Your task to perform on an android device: uninstall "Expedia: Hotels, Flights & Car" Image 0: 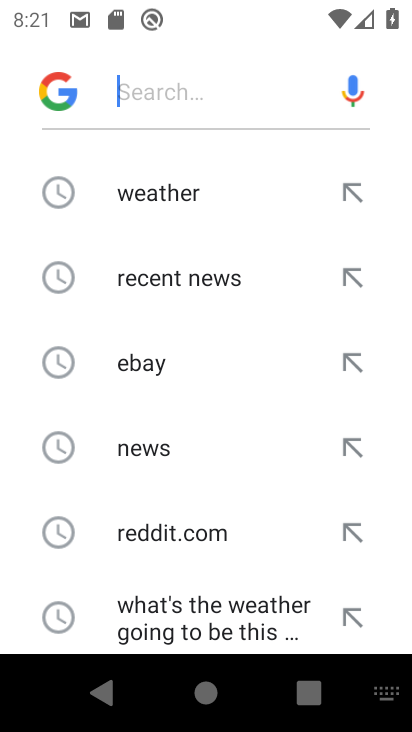
Step 0: press home button
Your task to perform on an android device: uninstall "Expedia: Hotels, Flights & Car" Image 1: 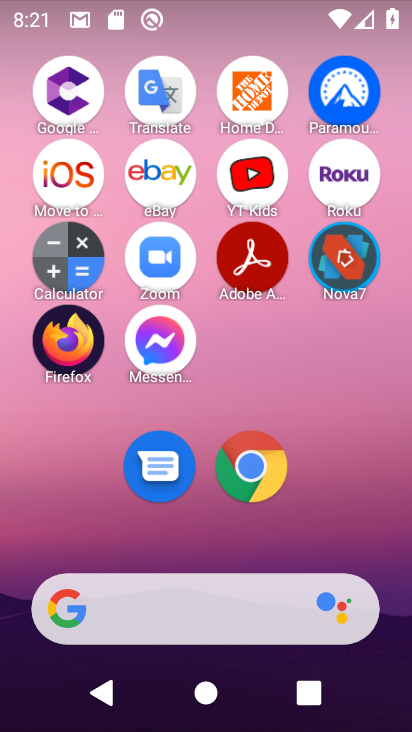
Step 1: drag from (212, 533) to (217, 81)
Your task to perform on an android device: uninstall "Expedia: Hotels, Flights & Car" Image 2: 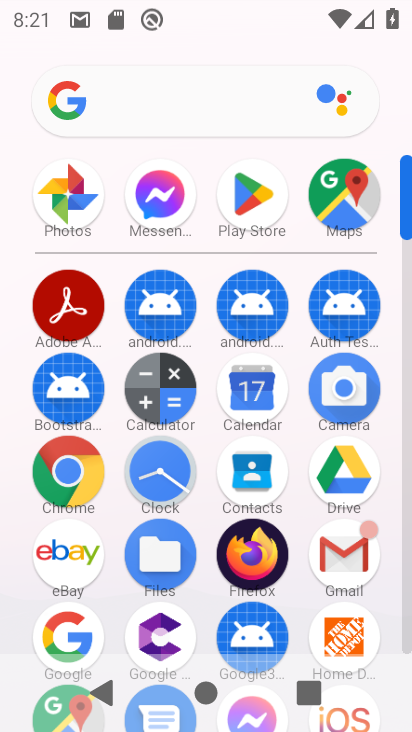
Step 2: click (247, 191)
Your task to perform on an android device: uninstall "Expedia: Hotels, Flights & Car" Image 3: 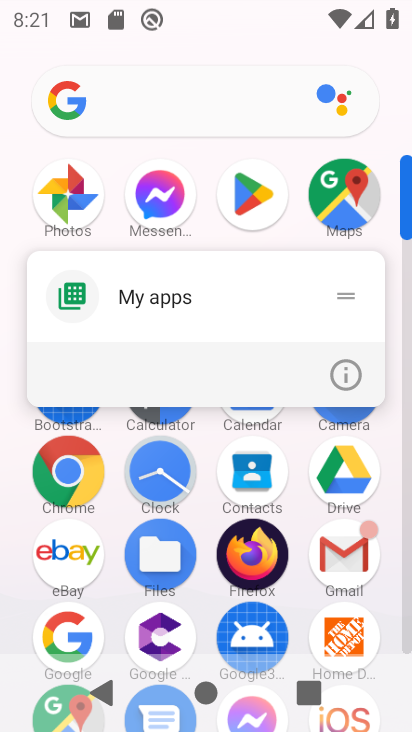
Step 3: click (246, 198)
Your task to perform on an android device: uninstall "Expedia: Hotels, Flights & Car" Image 4: 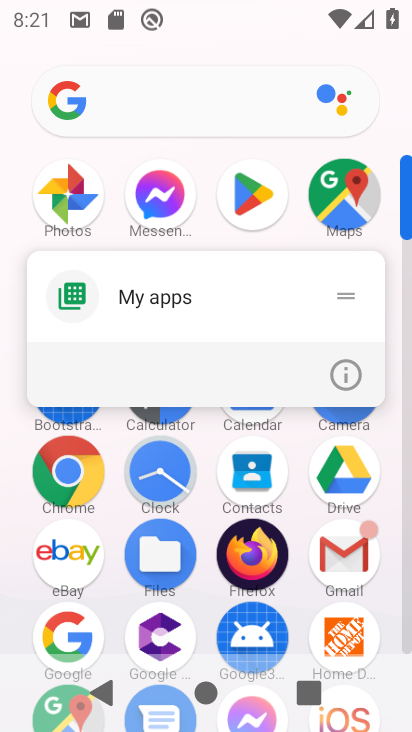
Step 4: click (246, 198)
Your task to perform on an android device: uninstall "Expedia: Hotels, Flights & Car" Image 5: 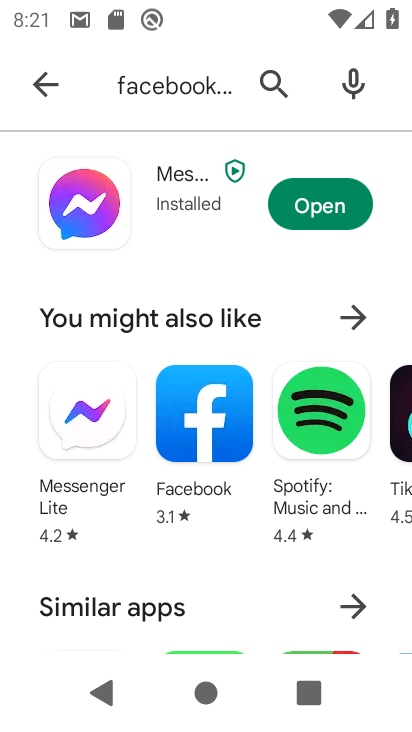
Step 5: click (160, 91)
Your task to perform on an android device: uninstall "Expedia: Hotels, Flights & Car" Image 6: 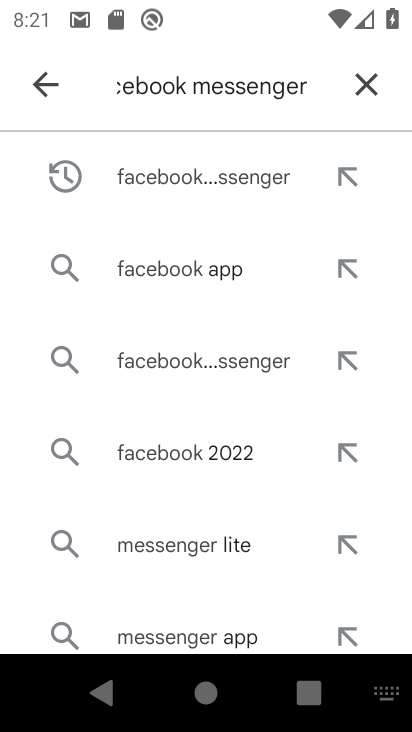
Step 6: click (374, 86)
Your task to perform on an android device: uninstall "Expedia: Hotels, Flights & Car" Image 7: 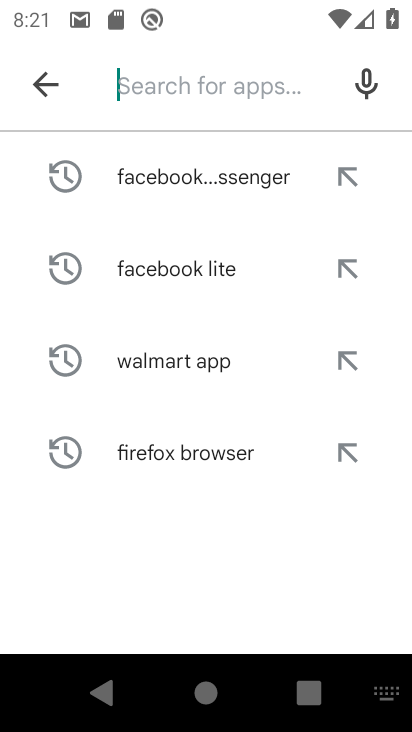
Step 7: type "expedia"
Your task to perform on an android device: uninstall "Expedia: Hotels, Flights & Car" Image 8: 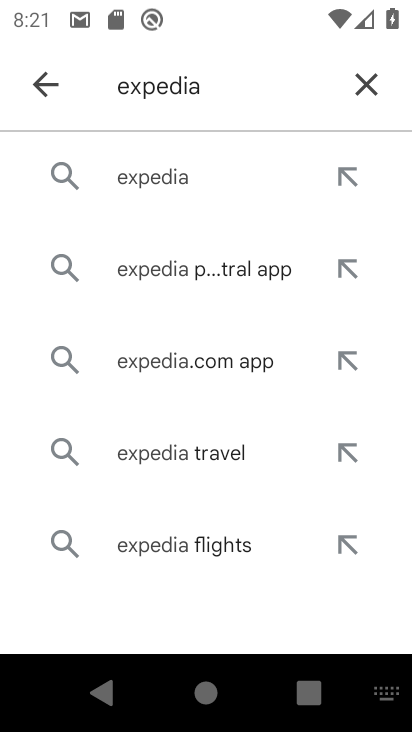
Step 8: click (163, 189)
Your task to perform on an android device: uninstall "Expedia: Hotels, Flights & Car" Image 9: 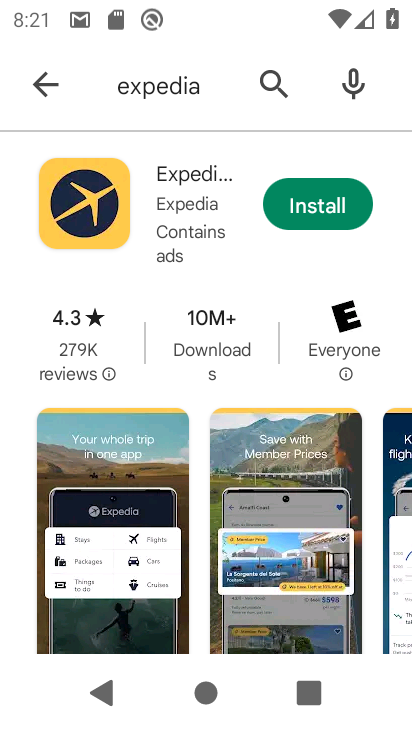
Step 9: task complete